Your task to perform on an android device: turn off location history Image 0: 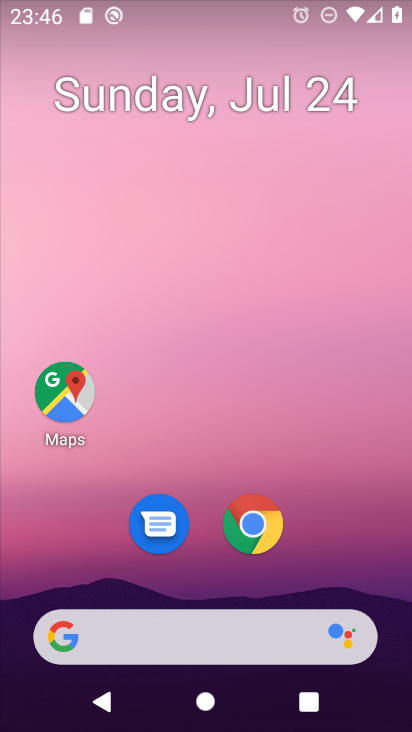
Step 0: press home button
Your task to perform on an android device: turn off location history Image 1: 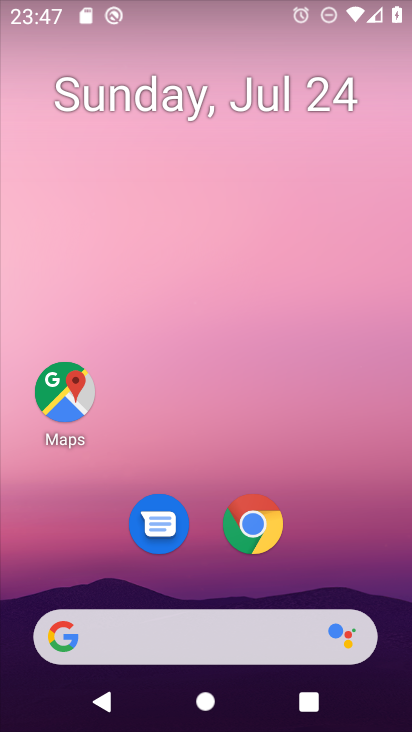
Step 1: click (68, 398)
Your task to perform on an android device: turn off location history Image 2: 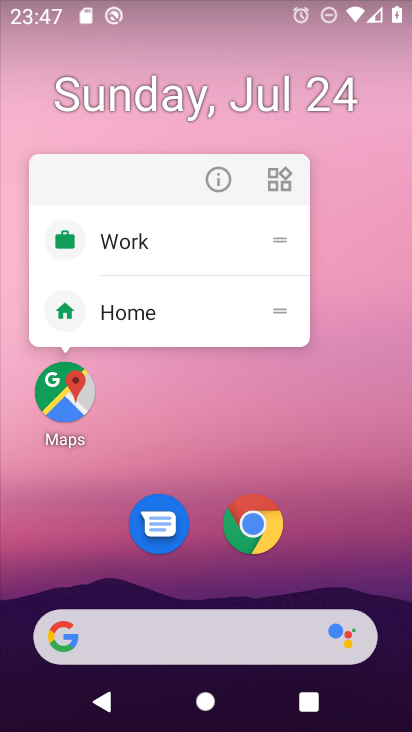
Step 2: click (57, 405)
Your task to perform on an android device: turn off location history Image 3: 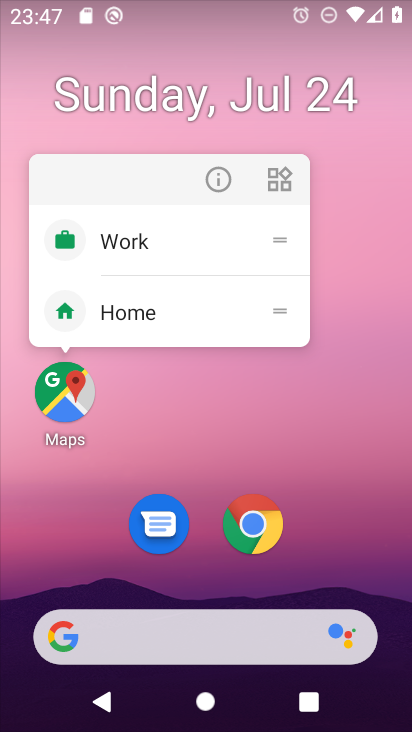
Step 3: click (69, 400)
Your task to perform on an android device: turn off location history Image 4: 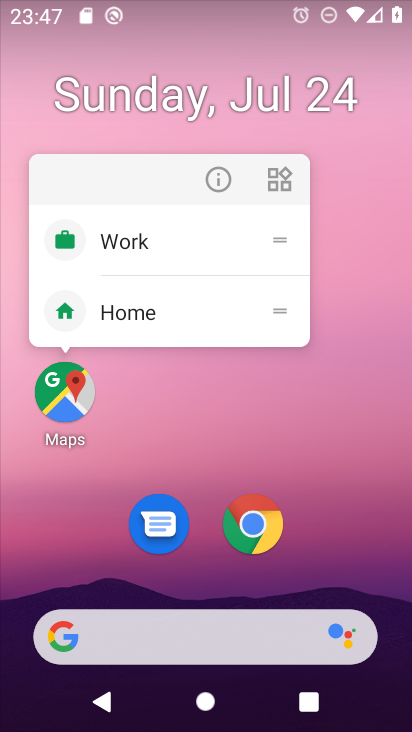
Step 4: click (62, 398)
Your task to perform on an android device: turn off location history Image 5: 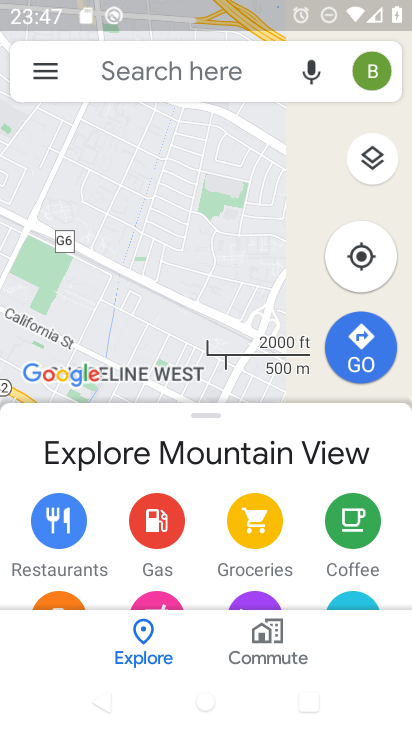
Step 5: click (51, 67)
Your task to perform on an android device: turn off location history Image 6: 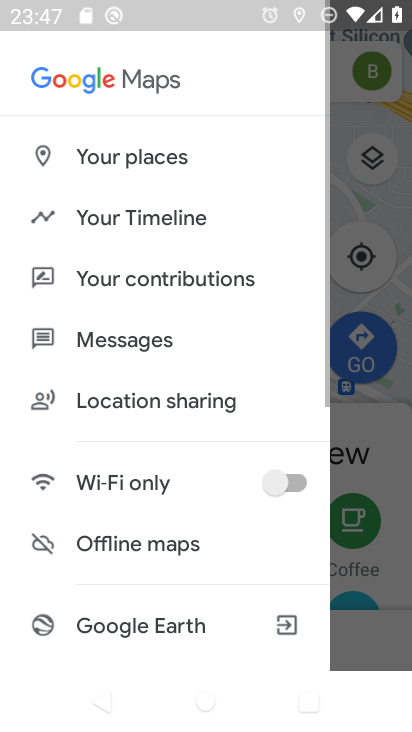
Step 6: click (141, 219)
Your task to perform on an android device: turn off location history Image 7: 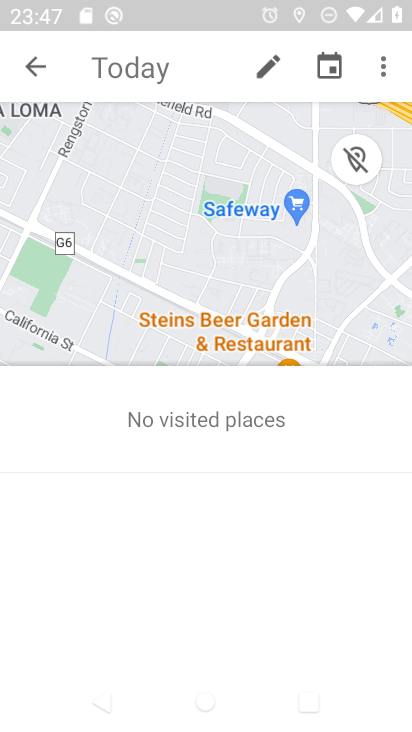
Step 7: click (381, 64)
Your task to perform on an android device: turn off location history Image 8: 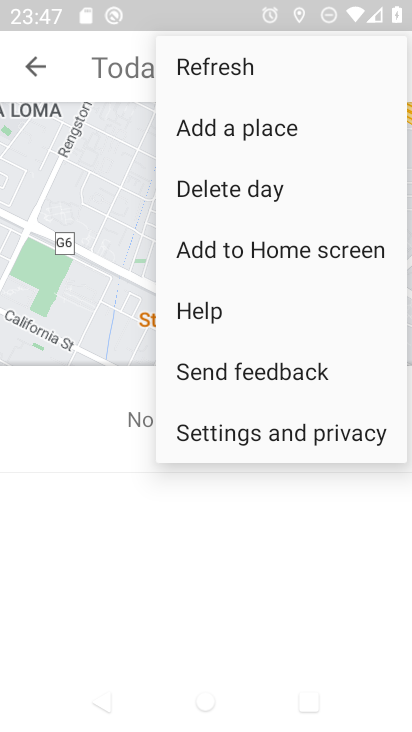
Step 8: click (250, 436)
Your task to perform on an android device: turn off location history Image 9: 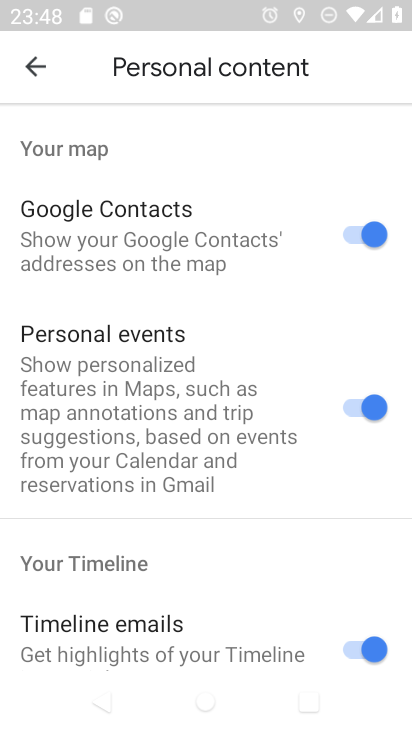
Step 9: drag from (175, 604) to (275, 105)
Your task to perform on an android device: turn off location history Image 10: 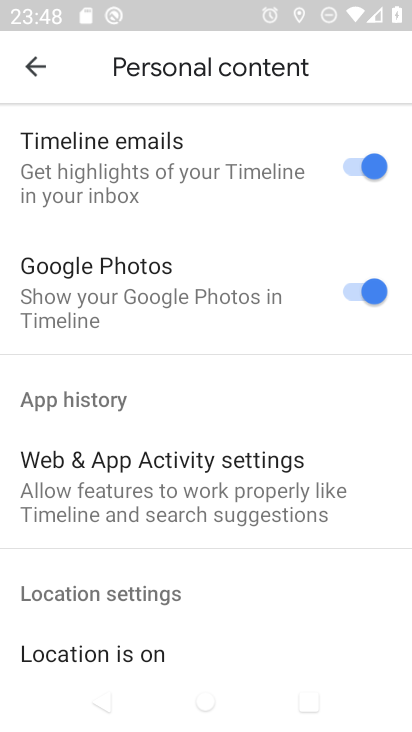
Step 10: drag from (157, 505) to (259, 175)
Your task to perform on an android device: turn off location history Image 11: 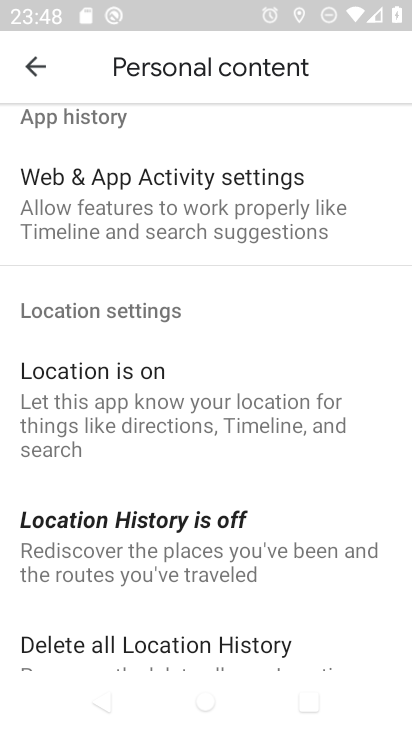
Step 11: click (155, 531)
Your task to perform on an android device: turn off location history Image 12: 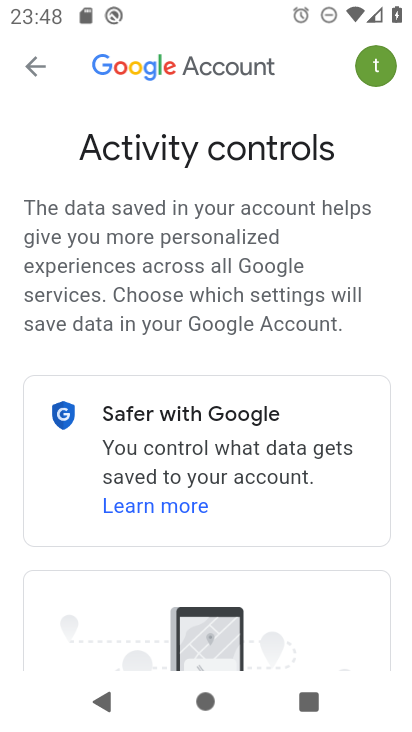
Step 12: task complete